Your task to perform on an android device: Open Google Image 0: 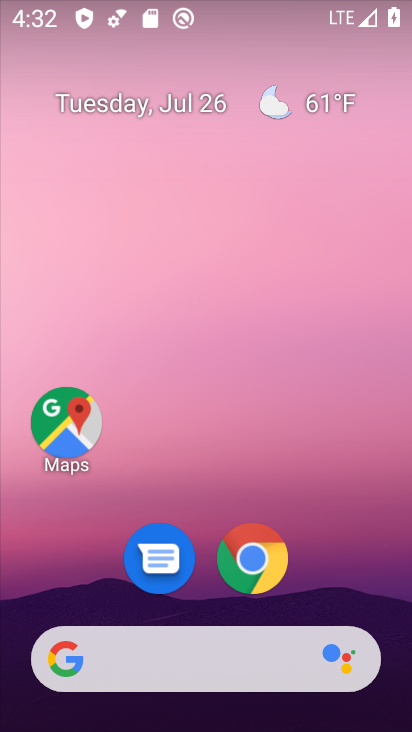
Step 0: drag from (160, 567) to (211, 13)
Your task to perform on an android device: Open Google Image 1: 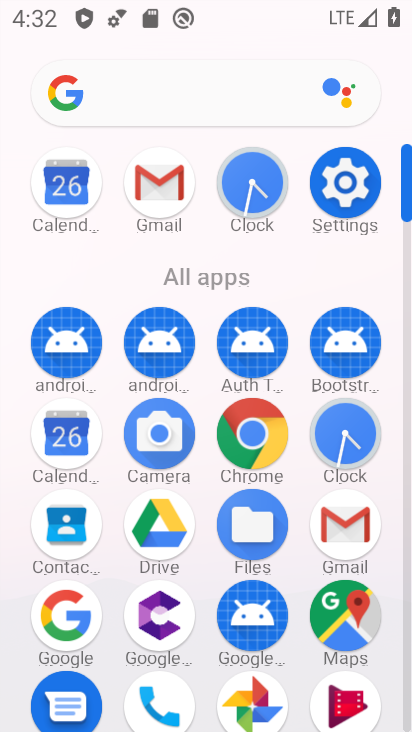
Step 1: click (63, 628)
Your task to perform on an android device: Open Google Image 2: 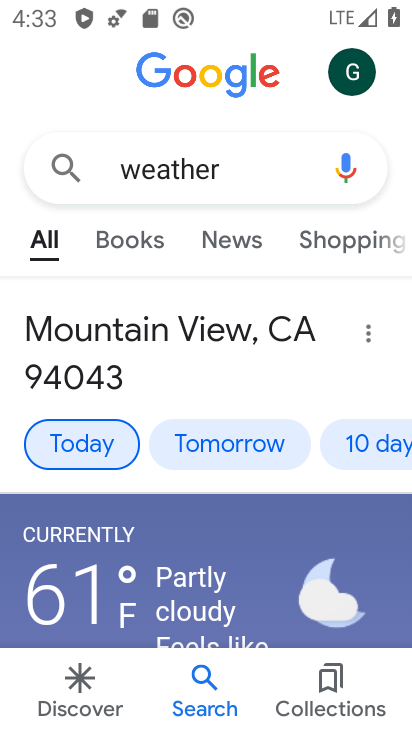
Step 2: task complete